Your task to perform on an android device: turn off location history Image 0: 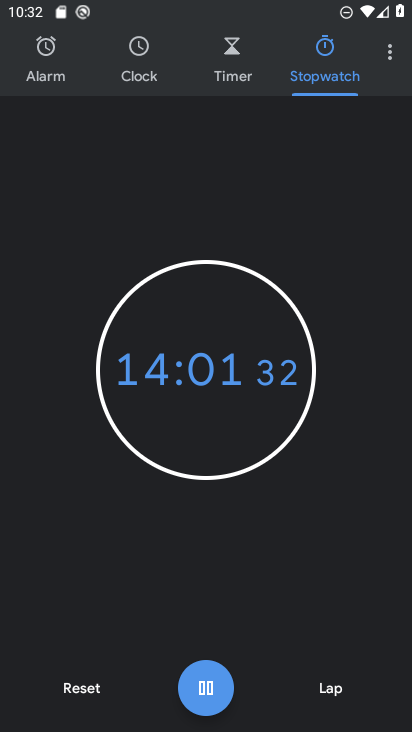
Step 0: press home button
Your task to perform on an android device: turn off location history Image 1: 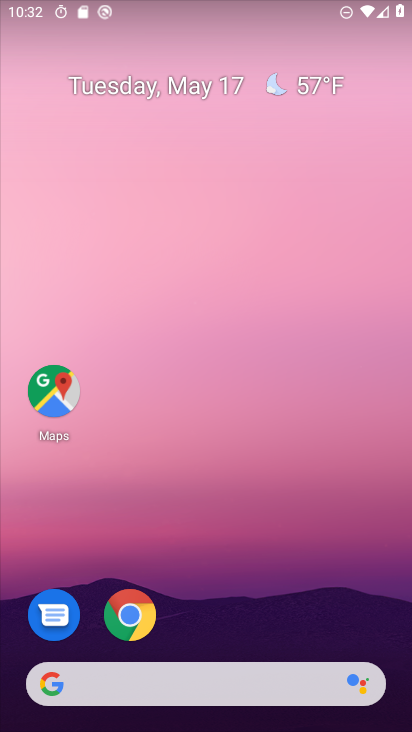
Step 1: drag from (247, 457) to (221, 61)
Your task to perform on an android device: turn off location history Image 2: 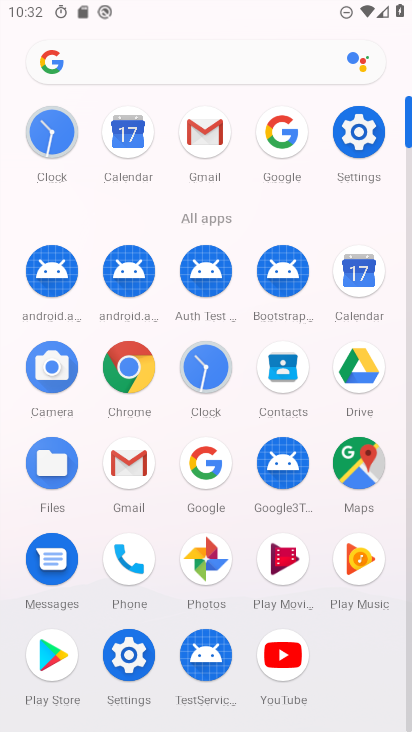
Step 2: click (359, 123)
Your task to perform on an android device: turn off location history Image 3: 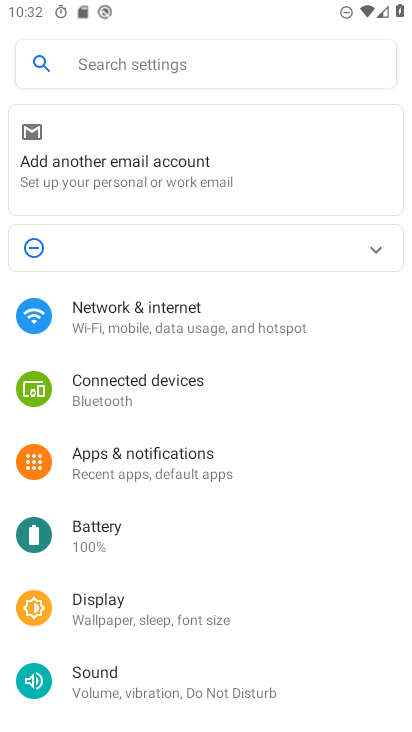
Step 3: drag from (201, 604) to (230, 130)
Your task to perform on an android device: turn off location history Image 4: 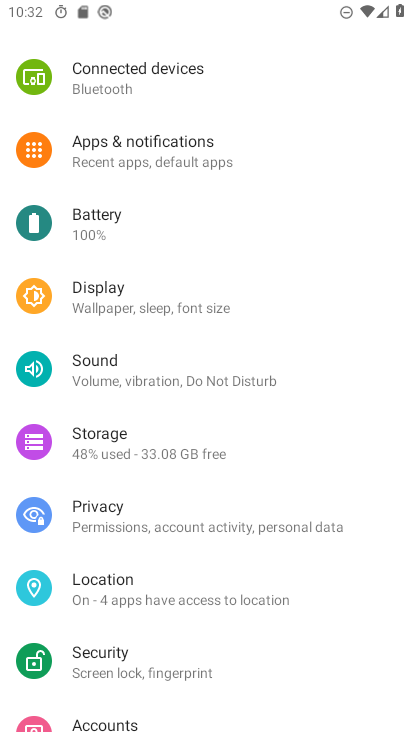
Step 4: click (146, 580)
Your task to perform on an android device: turn off location history Image 5: 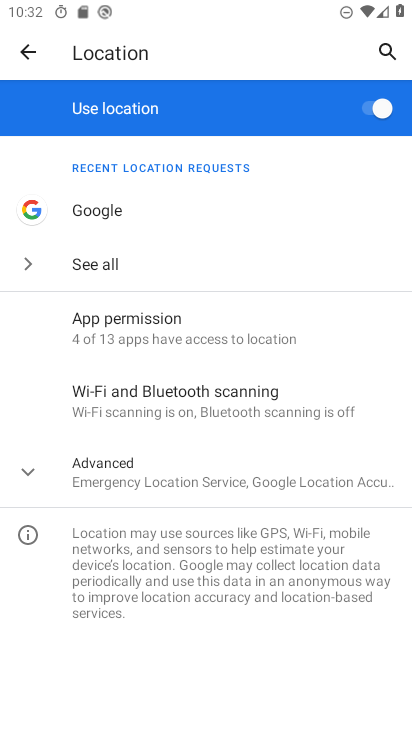
Step 5: click (181, 475)
Your task to perform on an android device: turn off location history Image 6: 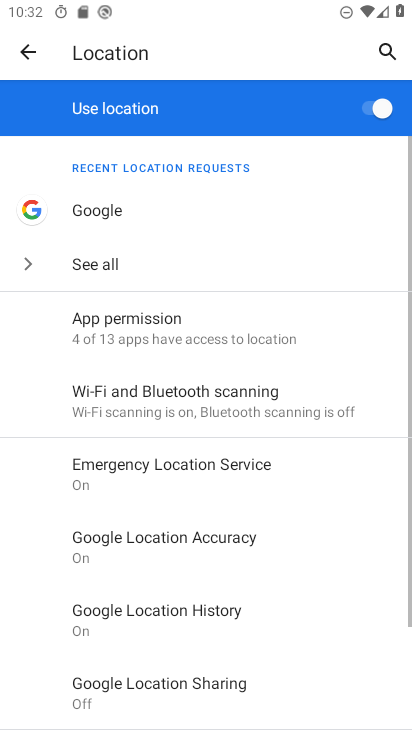
Step 6: click (202, 619)
Your task to perform on an android device: turn off location history Image 7: 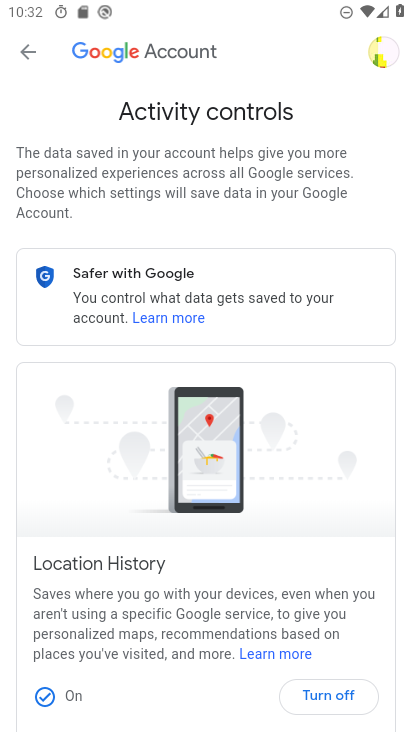
Step 7: click (335, 691)
Your task to perform on an android device: turn off location history Image 8: 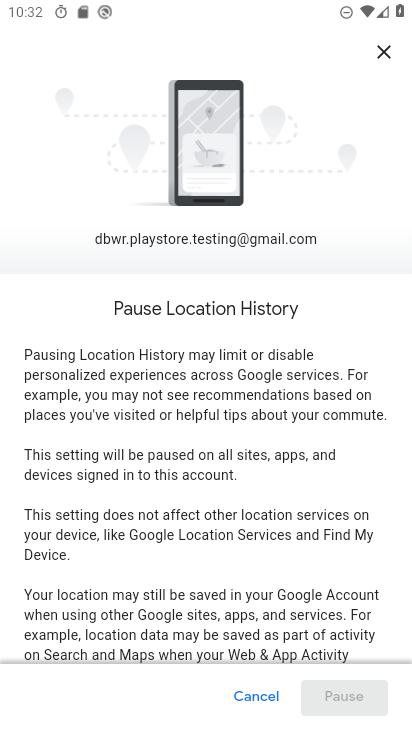
Step 8: drag from (232, 523) to (212, 181)
Your task to perform on an android device: turn off location history Image 9: 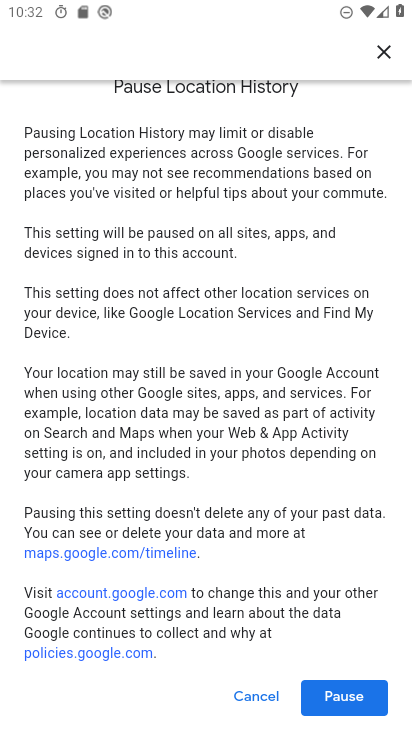
Step 9: click (342, 695)
Your task to perform on an android device: turn off location history Image 10: 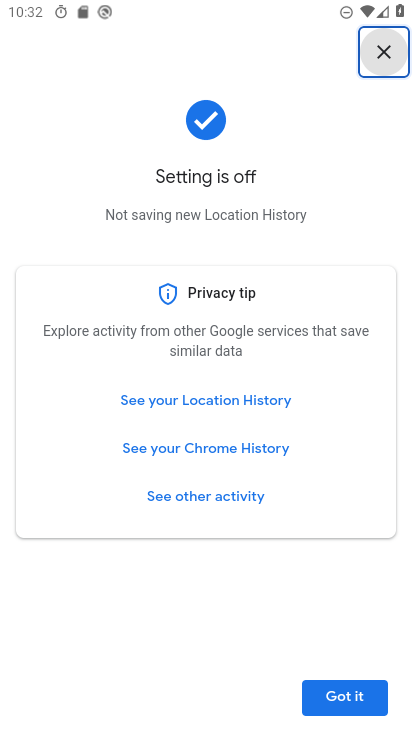
Step 10: click (347, 696)
Your task to perform on an android device: turn off location history Image 11: 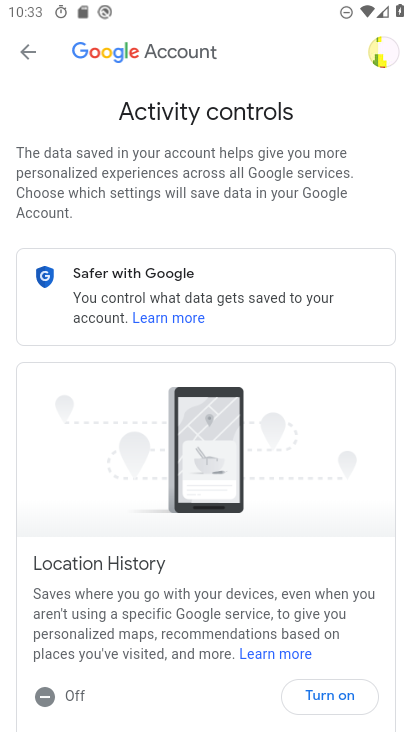
Step 11: task complete